Your task to perform on an android device: Open Chrome and go to settings Image 0: 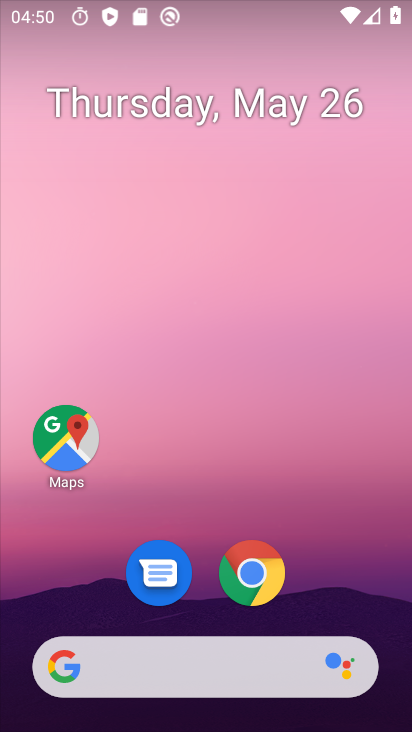
Step 0: drag from (289, 611) to (284, 183)
Your task to perform on an android device: Open Chrome and go to settings Image 1: 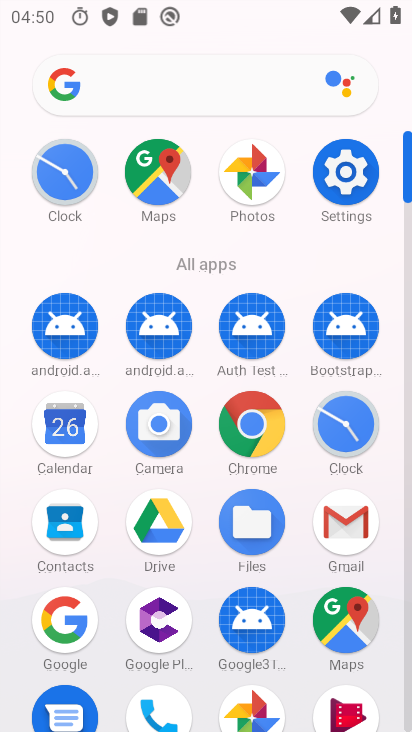
Step 1: click (356, 172)
Your task to perform on an android device: Open Chrome and go to settings Image 2: 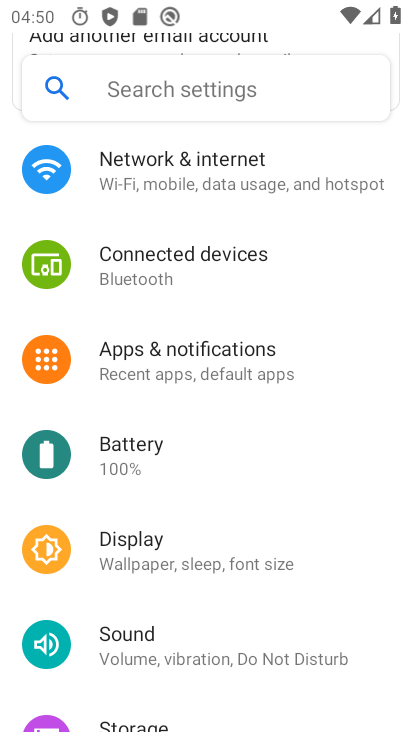
Step 2: press home button
Your task to perform on an android device: Open Chrome and go to settings Image 3: 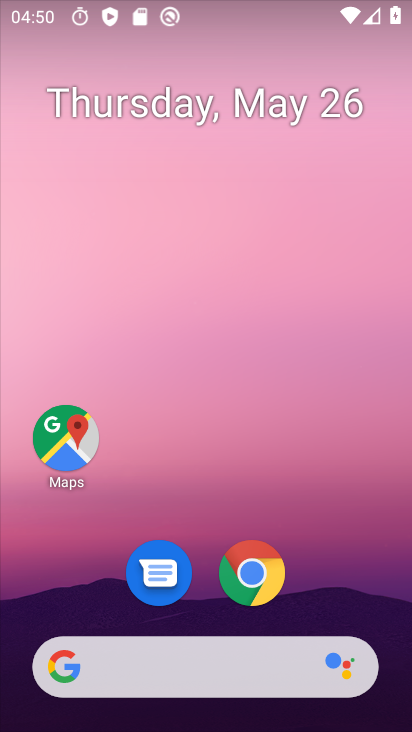
Step 3: click (263, 574)
Your task to perform on an android device: Open Chrome and go to settings Image 4: 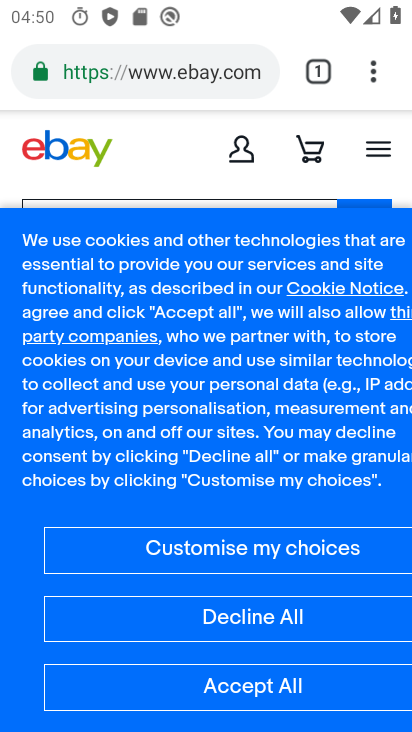
Step 4: click (368, 79)
Your task to perform on an android device: Open Chrome and go to settings Image 5: 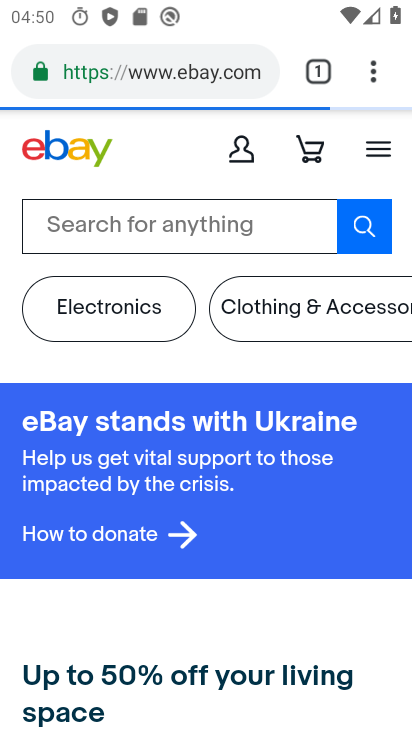
Step 5: click (376, 75)
Your task to perform on an android device: Open Chrome and go to settings Image 6: 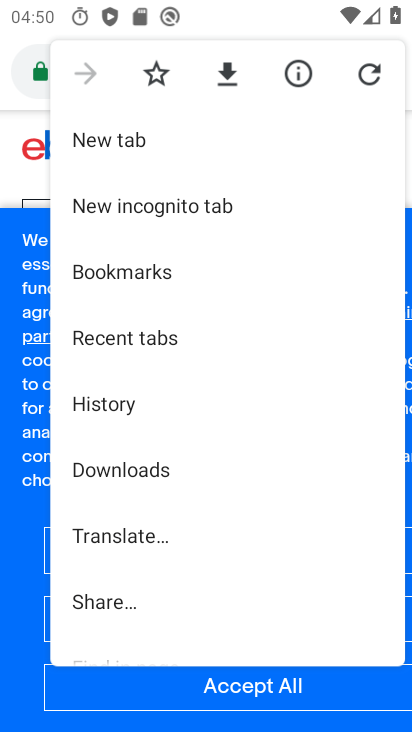
Step 6: drag from (158, 560) to (158, 351)
Your task to perform on an android device: Open Chrome and go to settings Image 7: 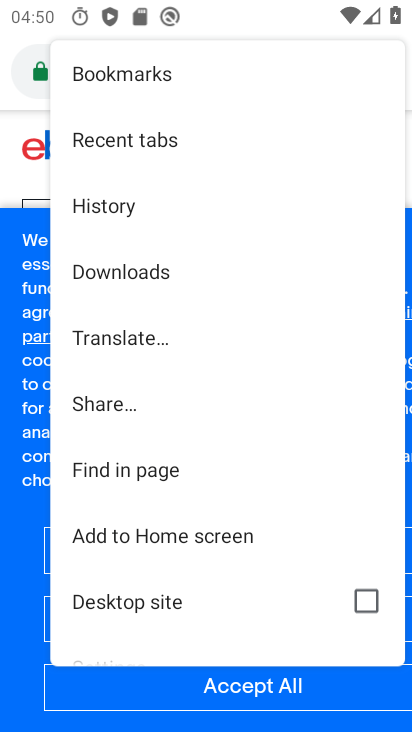
Step 7: drag from (185, 563) to (228, 375)
Your task to perform on an android device: Open Chrome and go to settings Image 8: 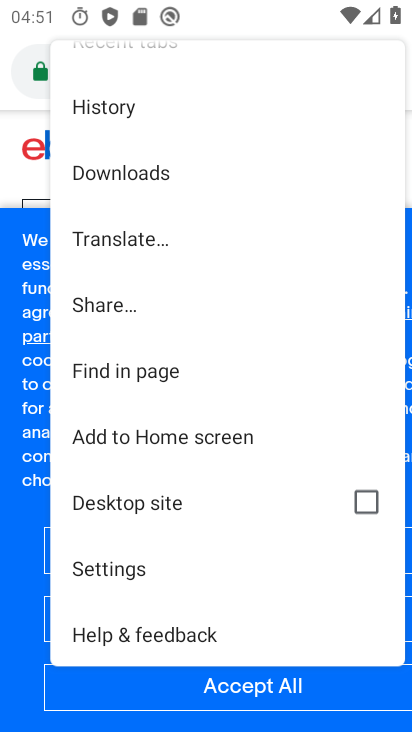
Step 8: click (134, 576)
Your task to perform on an android device: Open Chrome and go to settings Image 9: 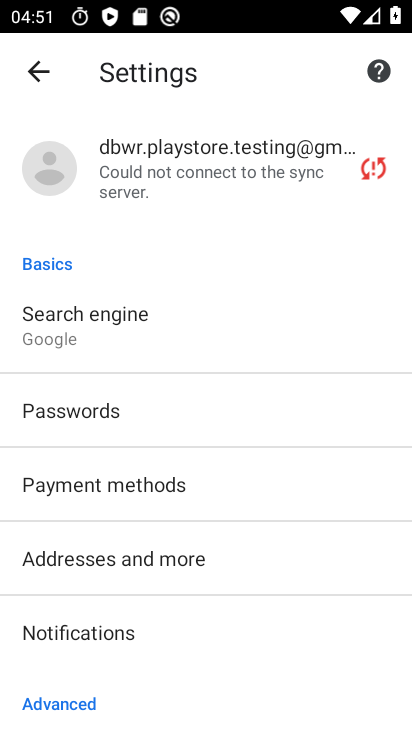
Step 9: task complete